Your task to perform on an android device: What's the weather going to be tomorrow? Image 0: 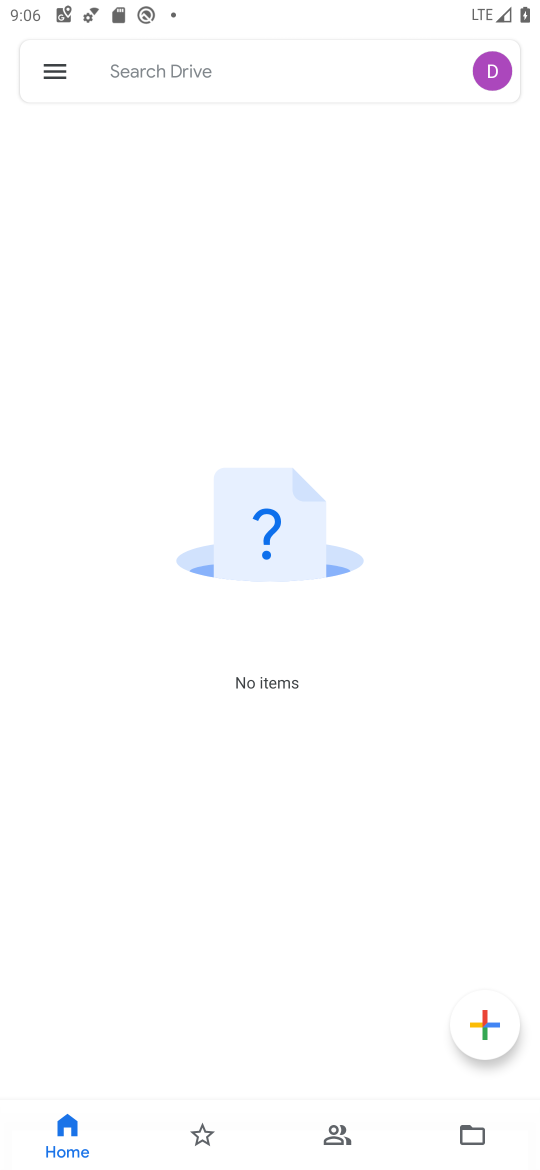
Step 0: press home button
Your task to perform on an android device: What's the weather going to be tomorrow? Image 1: 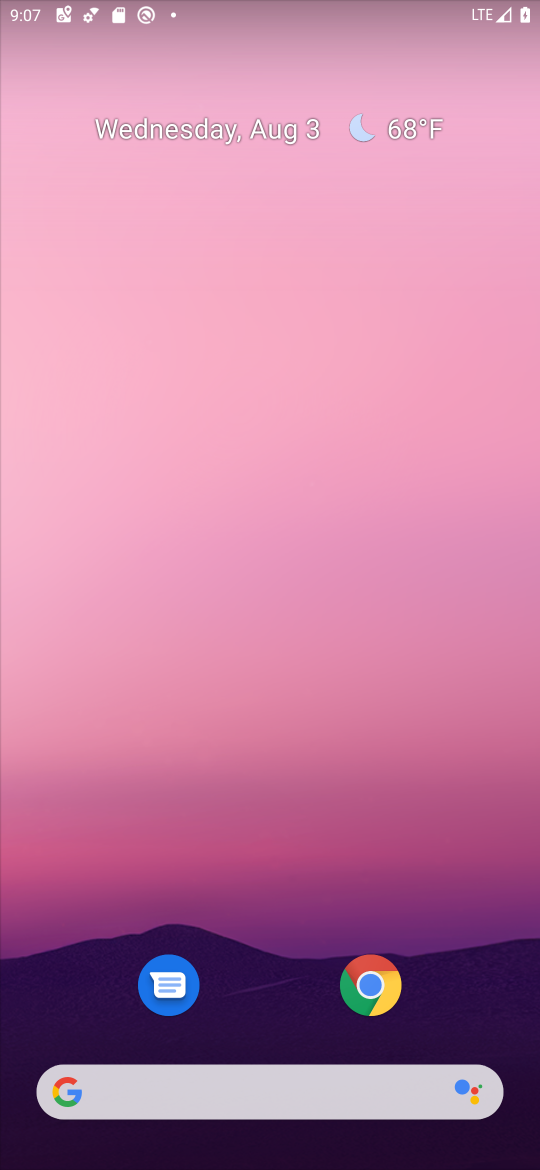
Step 1: drag from (284, 757) to (346, 75)
Your task to perform on an android device: What's the weather going to be tomorrow? Image 2: 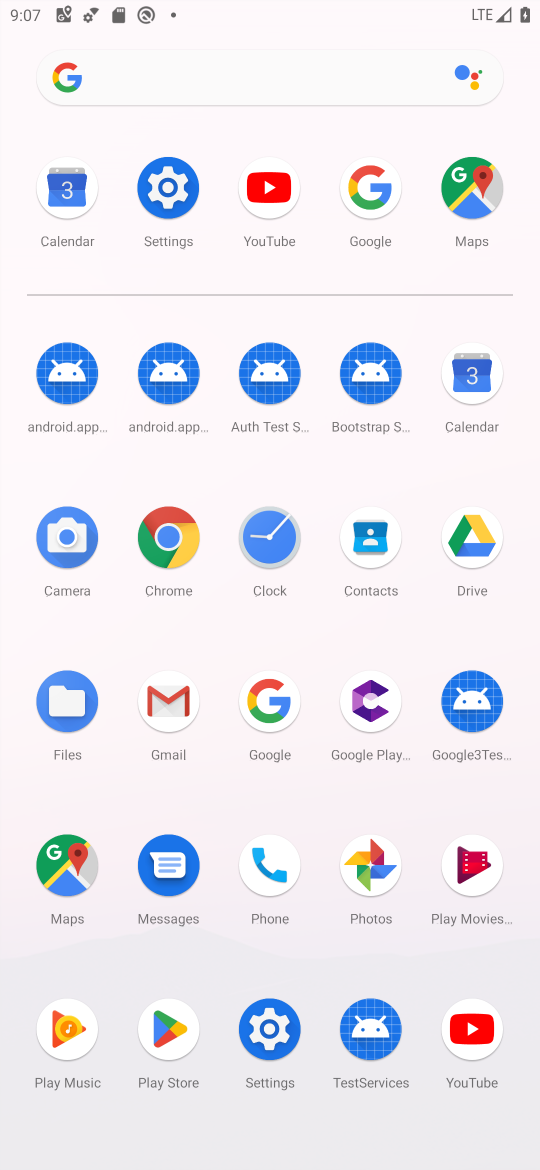
Step 2: click (294, 676)
Your task to perform on an android device: What's the weather going to be tomorrow? Image 3: 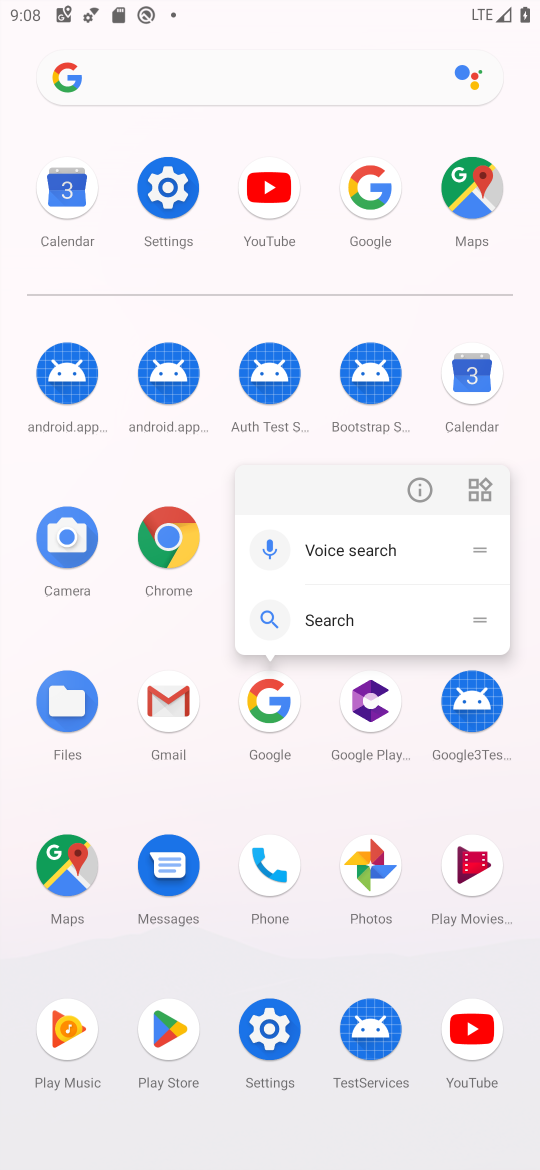
Step 3: click (267, 708)
Your task to perform on an android device: What's the weather going to be tomorrow? Image 4: 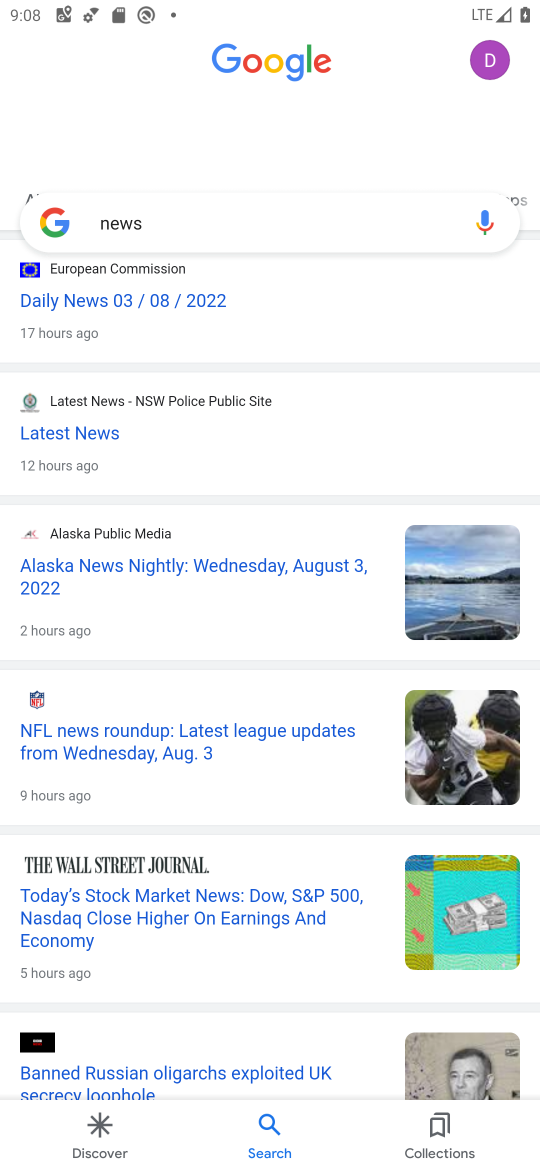
Step 4: click (272, 222)
Your task to perform on an android device: What's the weather going to be tomorrow? Image 5: 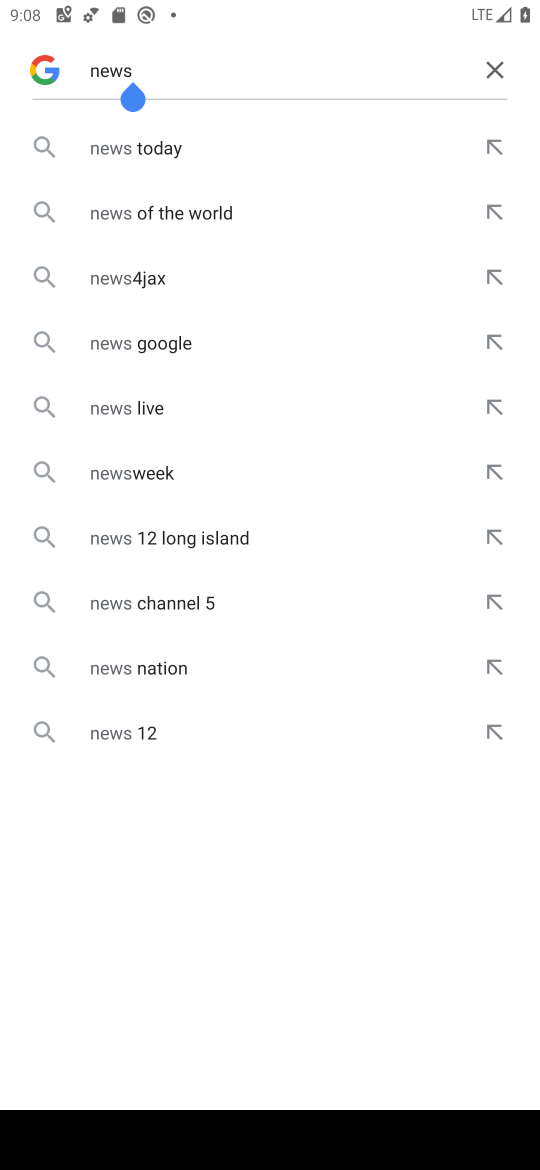
Step 5: click (481, 69)
Your task to perform on an android device: What's the weather going to be tomorrow? Image 6: 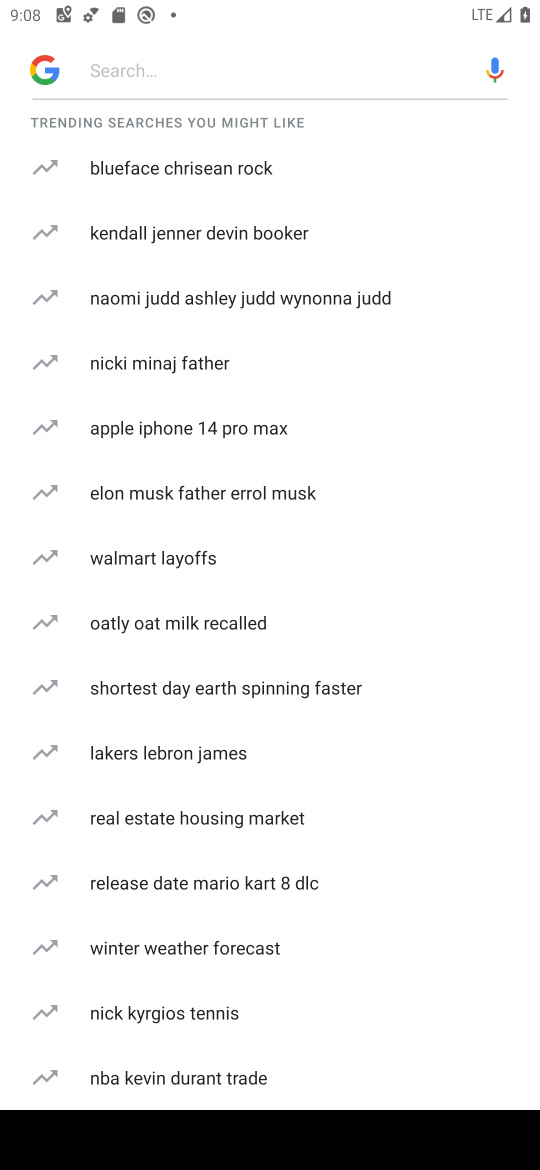
Step 6: type "weather"
Your task to perform on an android device: What's the weather going to be tomorrow? Image 7: 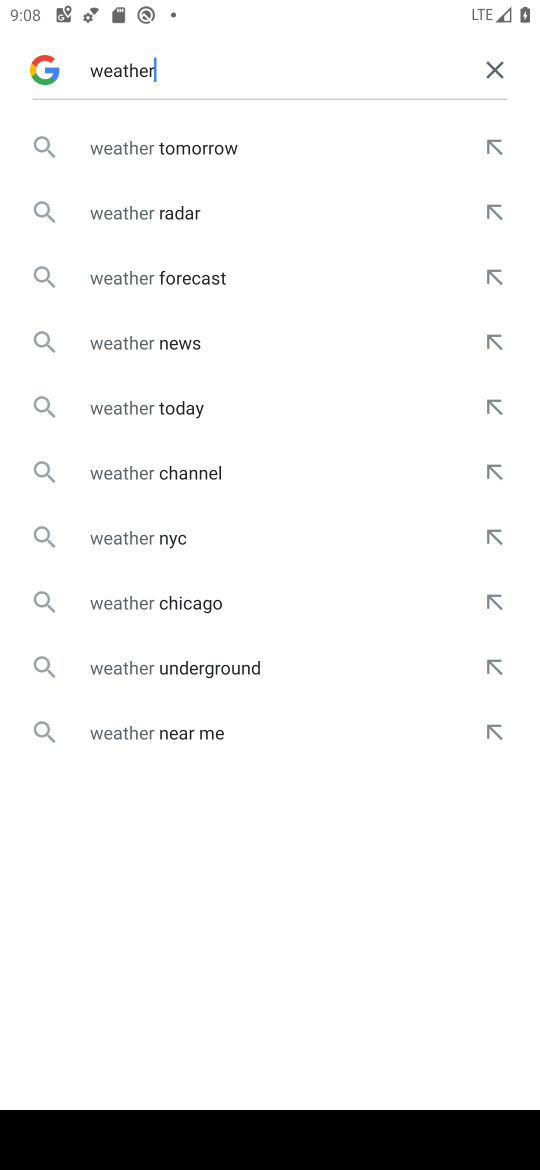
Step 7: click (232, 155)
Your task to perform on an android device: What's the weather going to be tomorrow? Image 8: 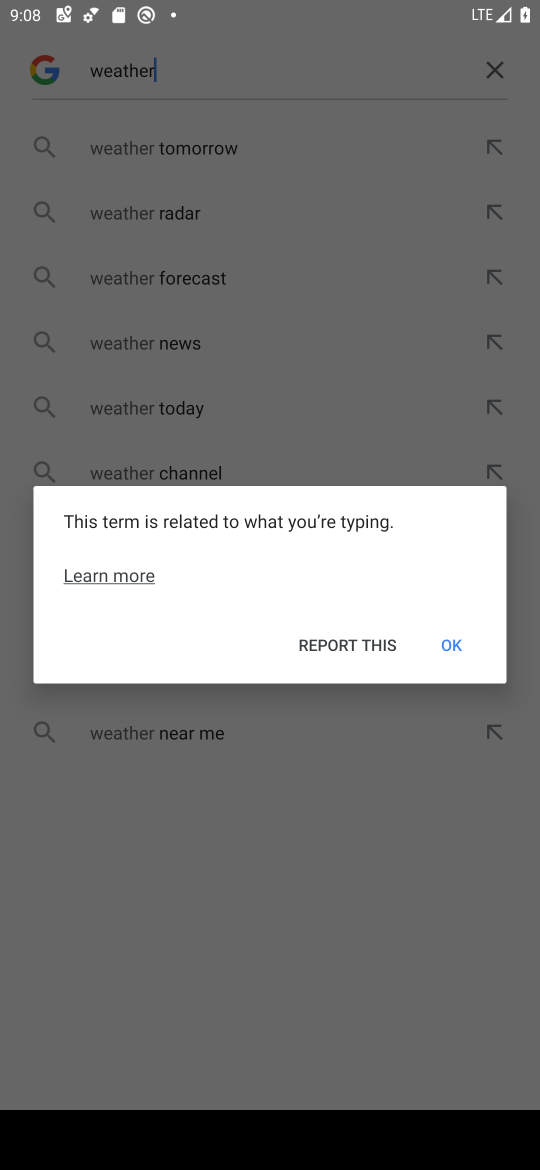
Step 8: click (446, 637)
Your task to perform on an android device: What's the weather going to be tomorrow? Image 9: 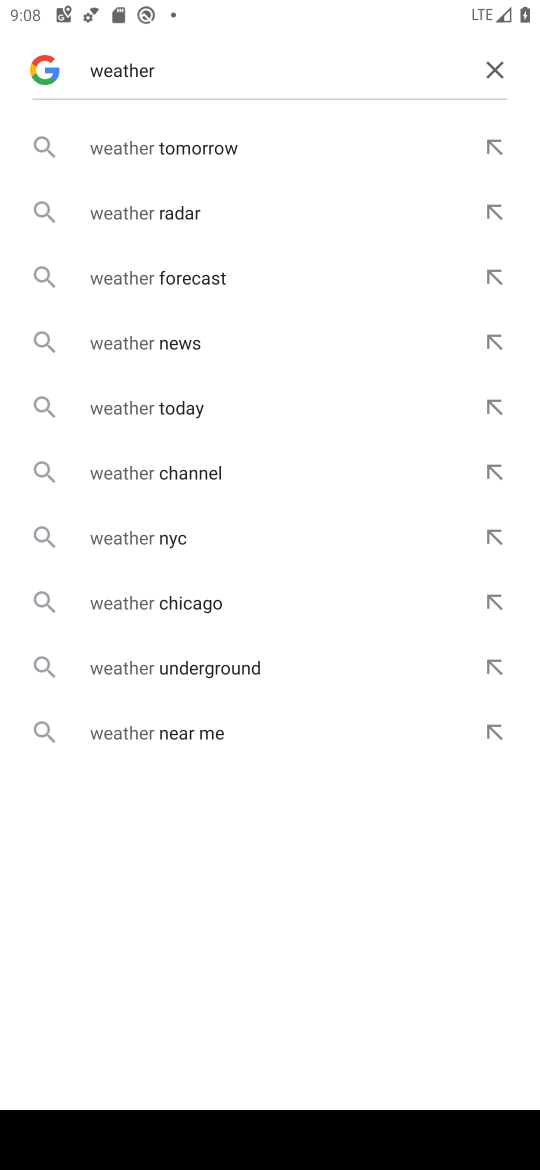
Step 9: click (190, 143)
Your task to perform on an android device: What's the weather going to be tomorrow? Image 10: 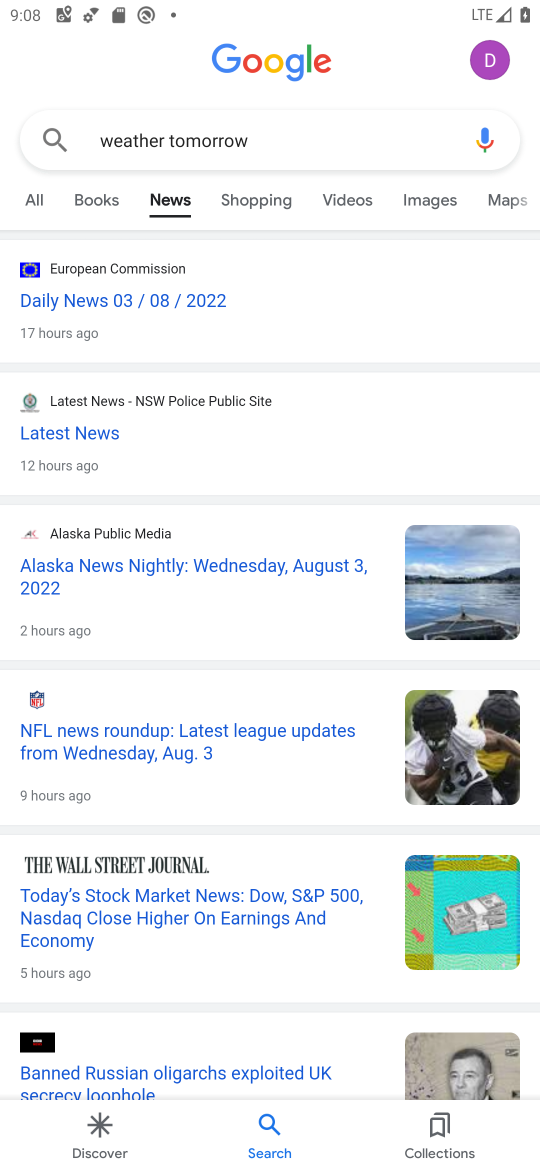
Step 10: click (38, 197)
Your task to perform on an android device: What's the weather going to be tomorrow? Image 11: 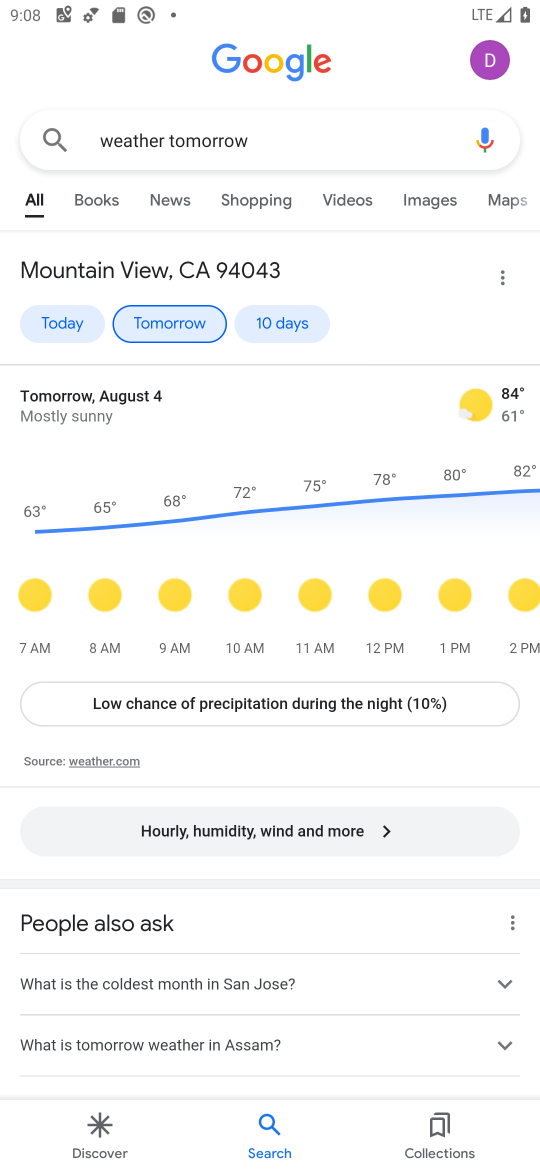
Step 11: task complete